Your task to perform on an android device: Go to Wikipedia Image 0: 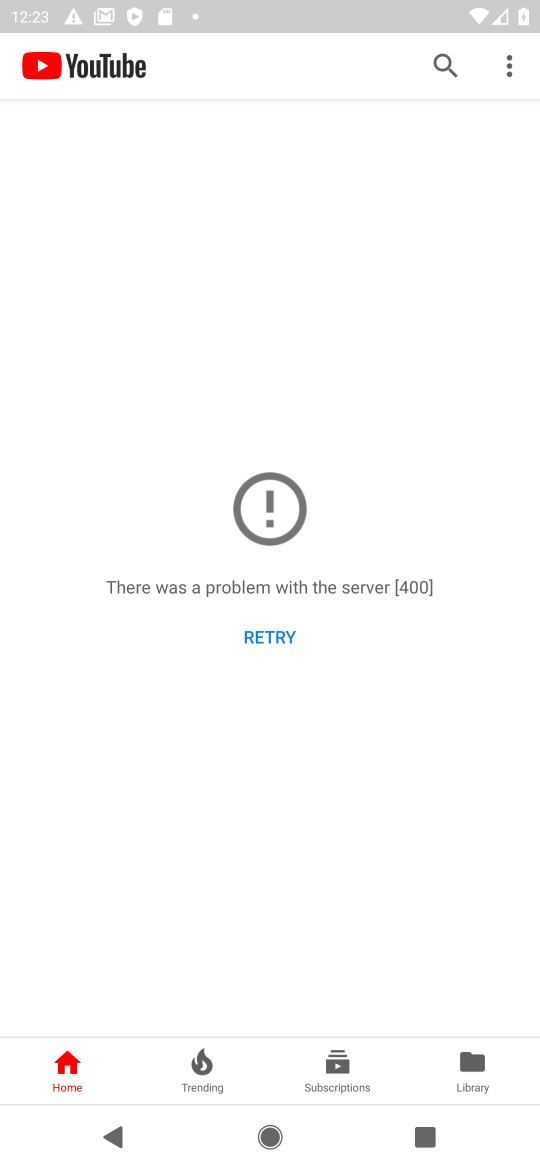
Step 0: press home button
Your task to perform on an android device: Go to Wikipedia Image 1: 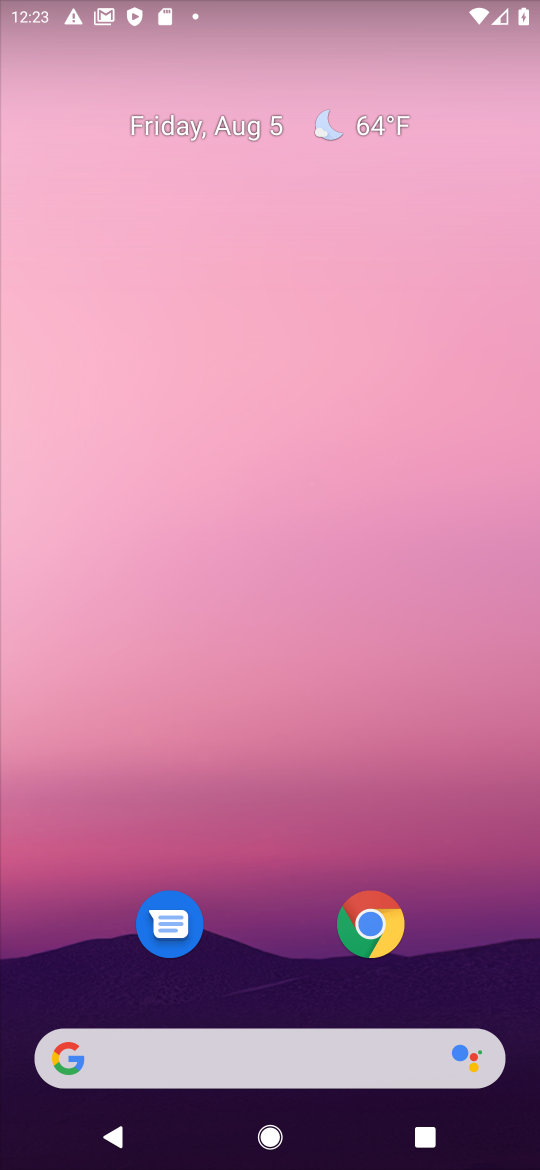
Step 1: click (78, 1053)
Your task to perform on an android device: Go to Wikipedia Image 2: 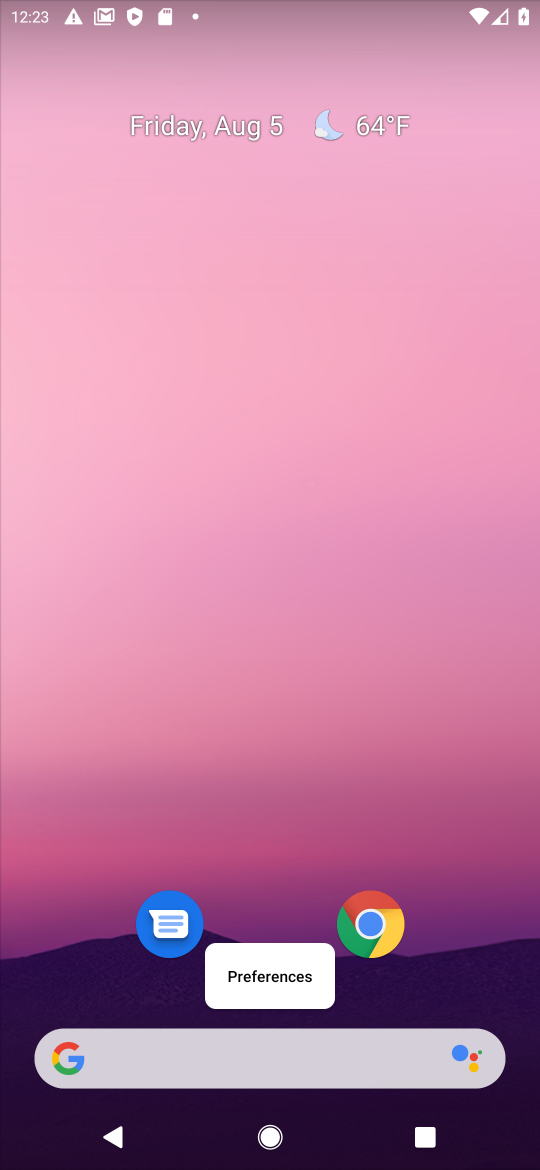
Step 2: type "Wikipedia"
Your task to perform on an android device: Go to Wikipedia Image 3: 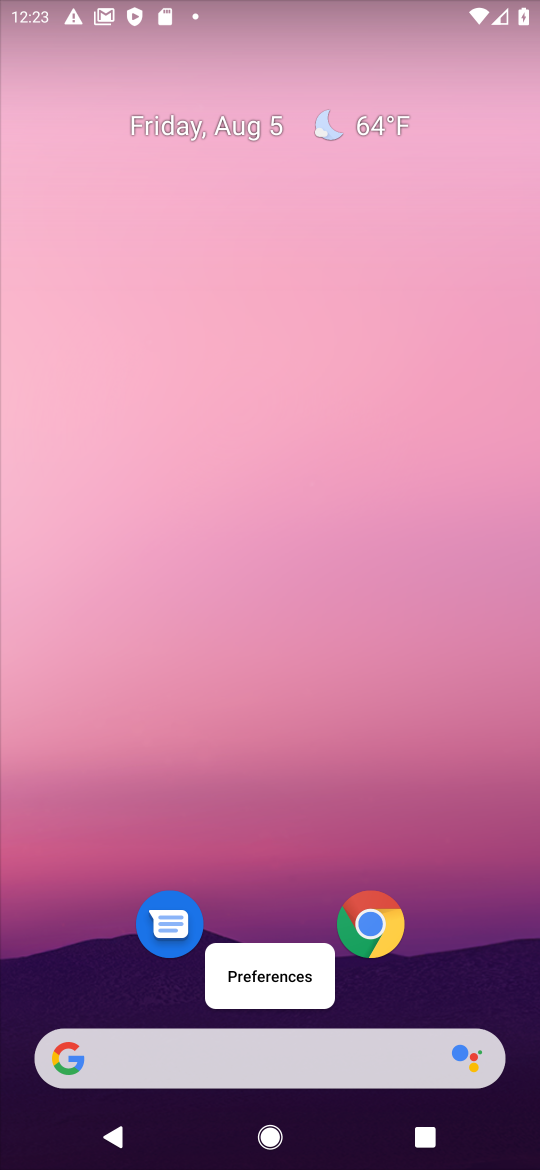
Step 3: click (59, 1059)
Your task to perform on an android device: Go to Wikipedia Image 4: 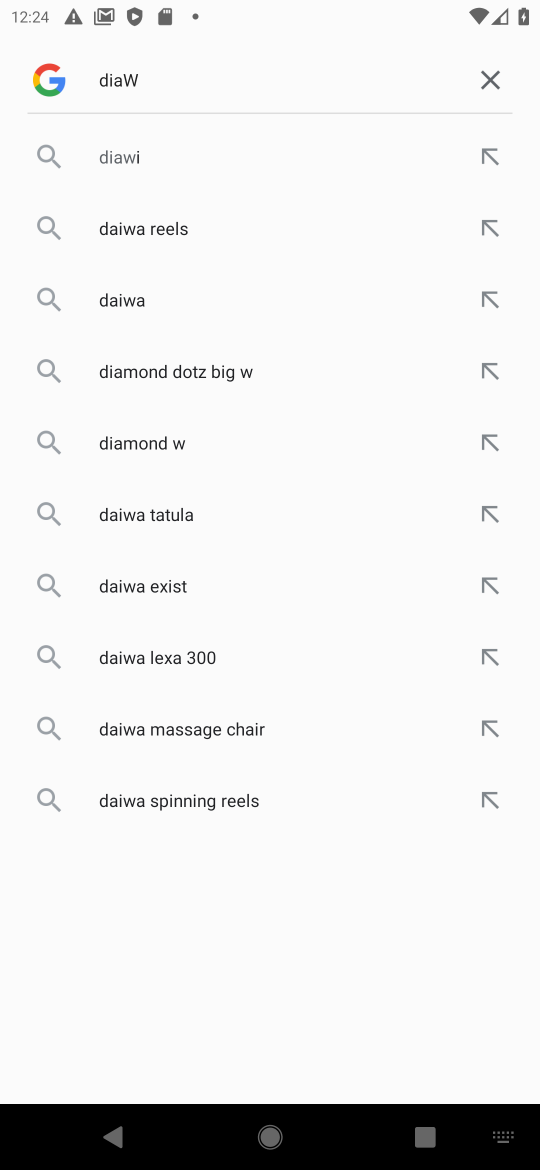
Step 4: click (493, 77)
Your task to perform on an android device: Go to Wikipedia Image 5: 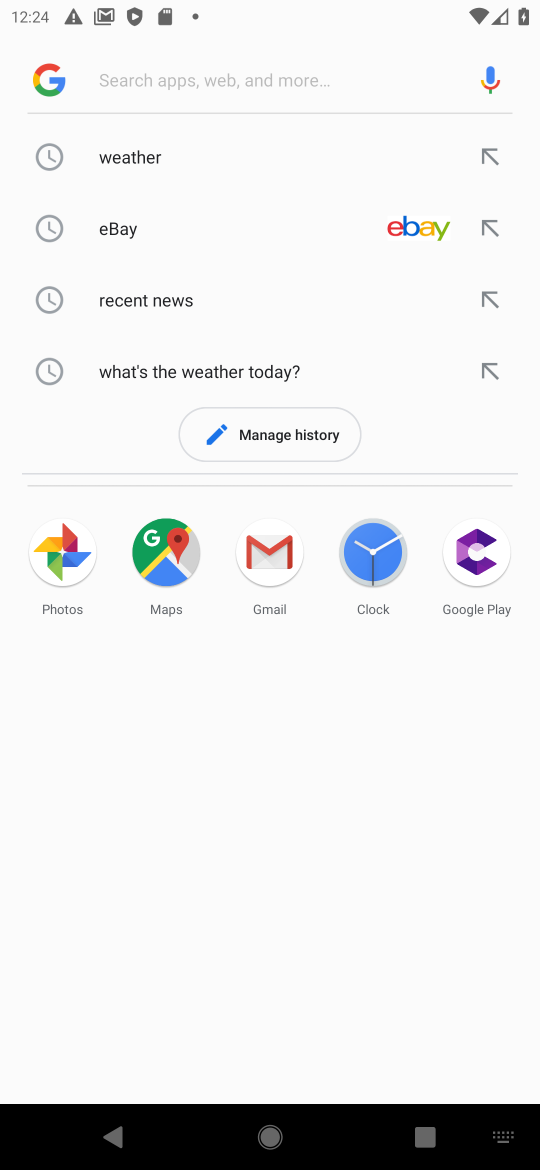
Step 5: type "Wikipedia"
Your task to perform on an android device: Go to Wikipedia Image 6: 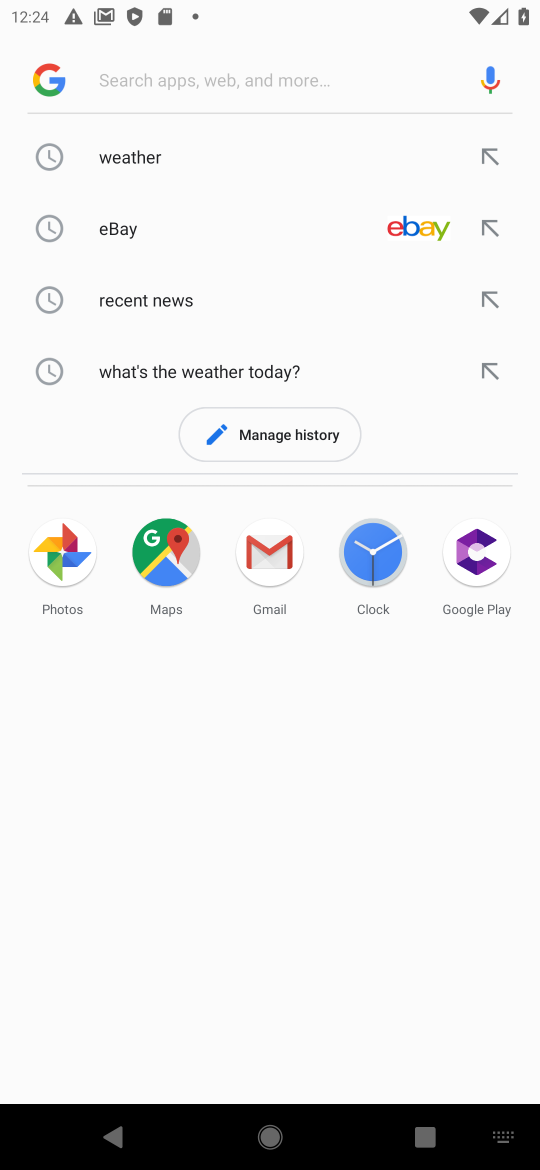
Step 6: click (166, 84)
Your task to perform on an android device: Go to Wikipedia Image 7: 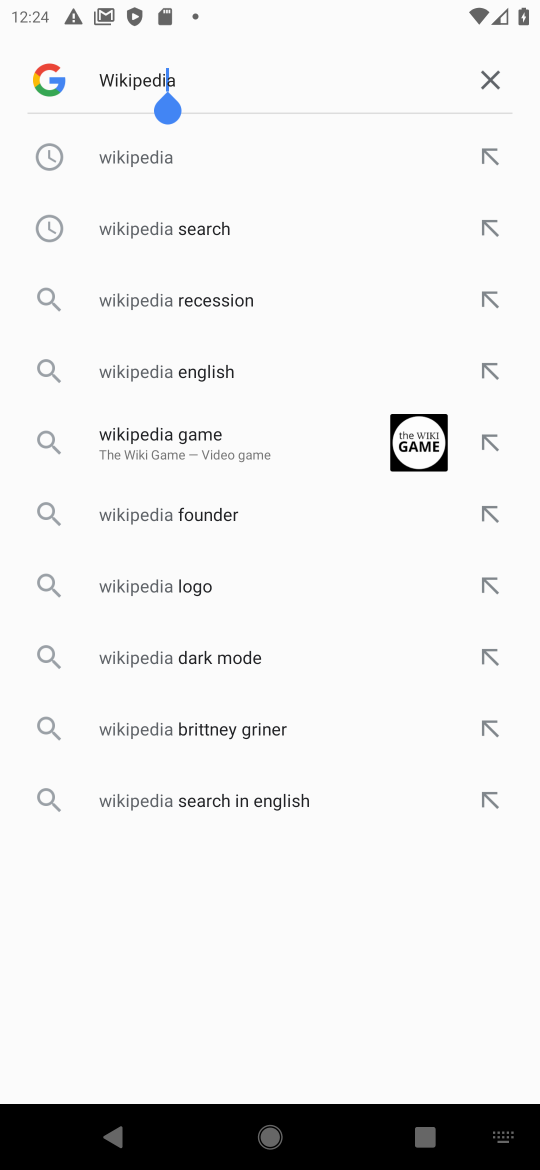
Step 7: click (184, 152)
Your task to perform on an android device: Go to Wikipedia Image 8: 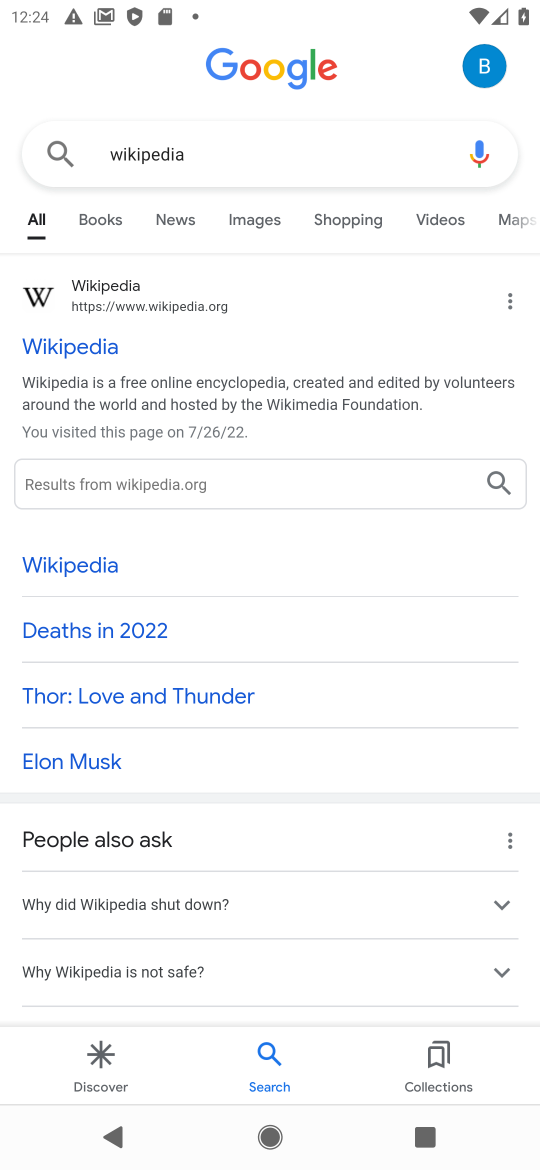
Step 8: click (59, 355)
Your task to perform on an android device: Go to Wikipedia Image 9: 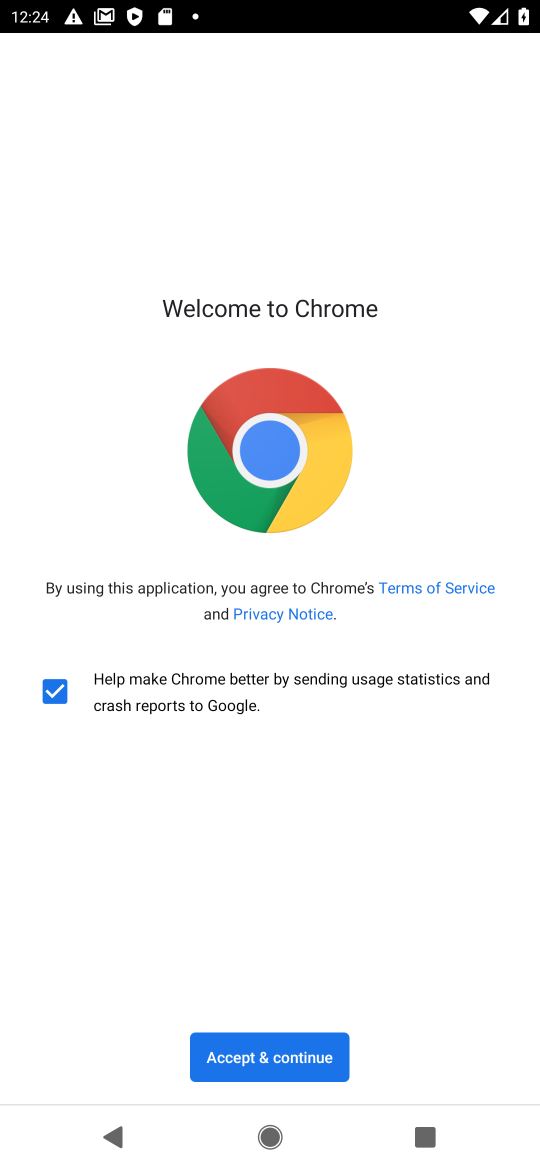
Step 9: click (316, 1056)
Your task to perform on an android device: Go to Wikipedia Image 10: 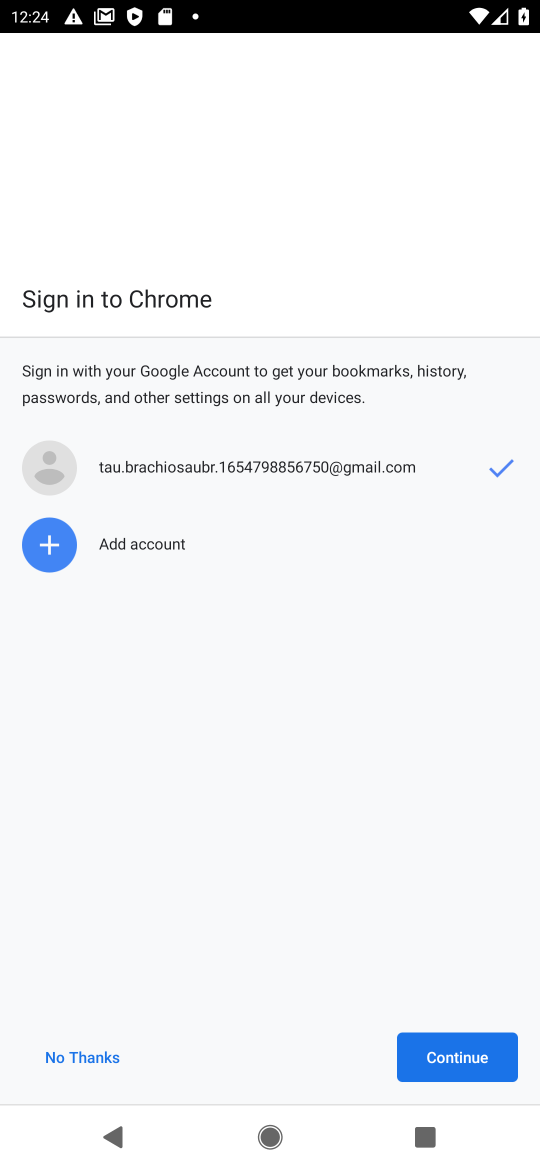
Step 10: click (485, 1063)
Your task to perform on an android device: Go to Wikipedia Image 11: 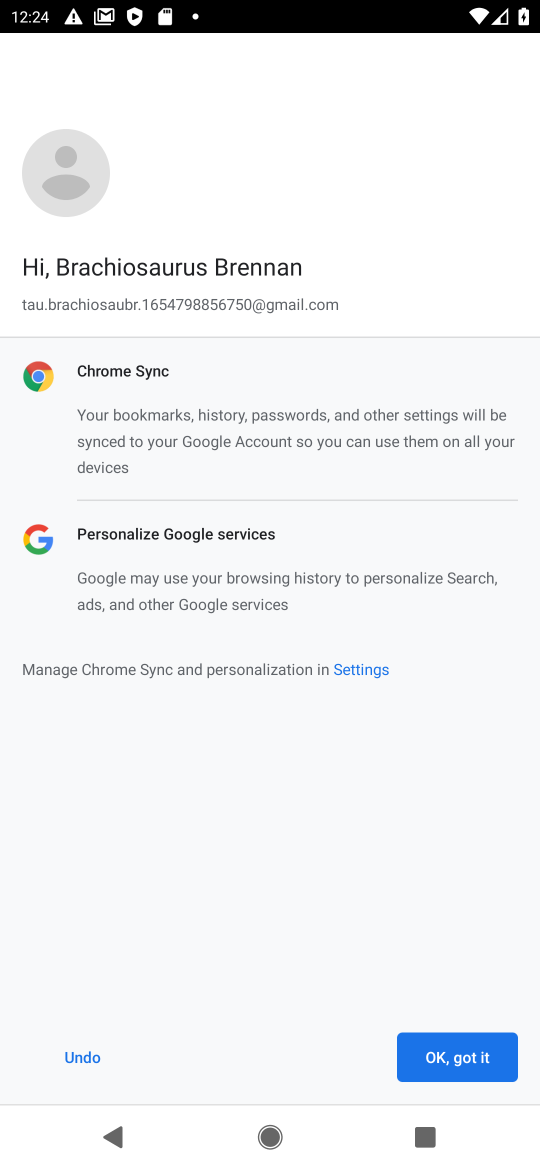
Step 11: click (485, 1063)
Your task to perform on an android device: Go to Wikipedia Image 12: 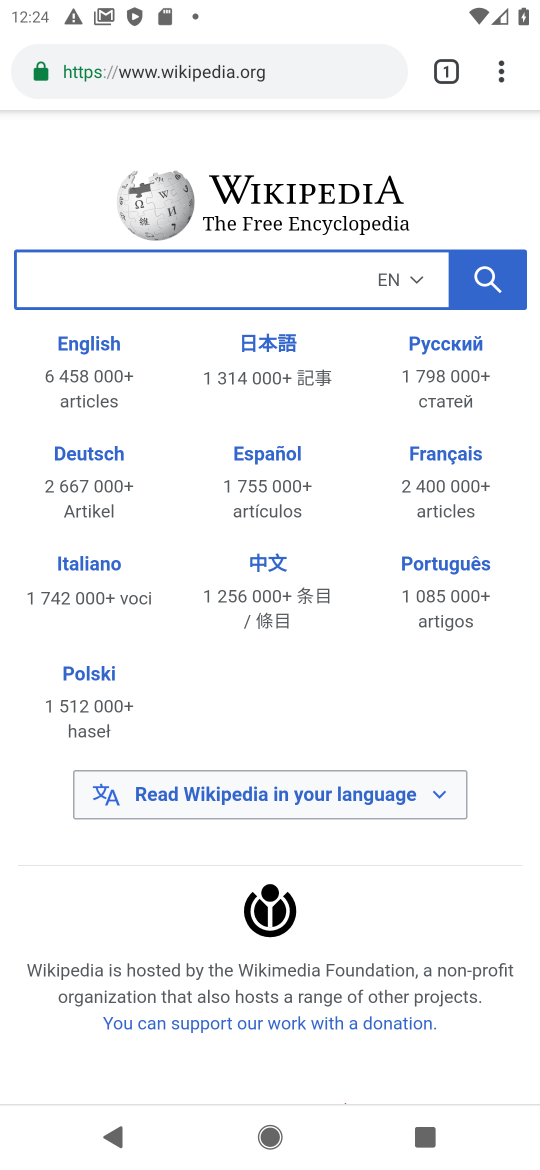
Step 12: task complete